Your task to perform on an android device: Search for a nightstand on IKEA. Image 0: 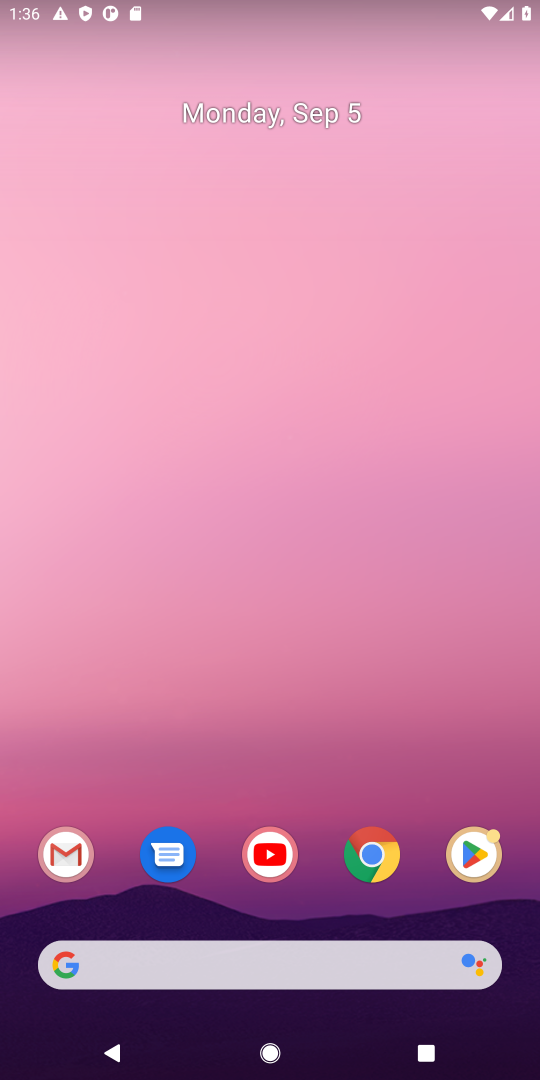
Step 0: click (395, 953)
Your task to perform on an android device: Search for a nightstand on IKEA. Image 1: 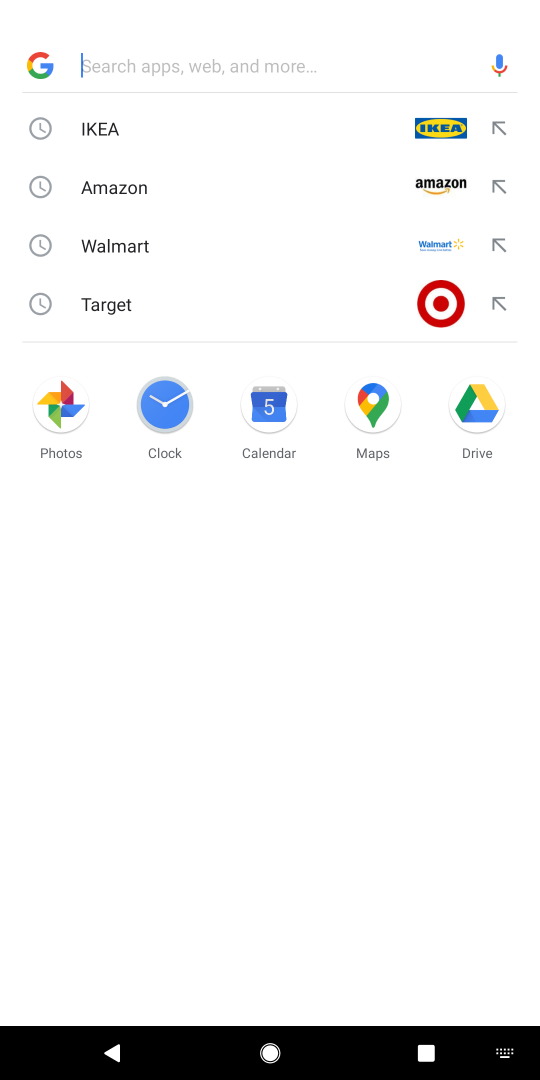
Step 1: press enter
Your task to perform on an android device: Search for a nightstand on IKEA. Image 2: 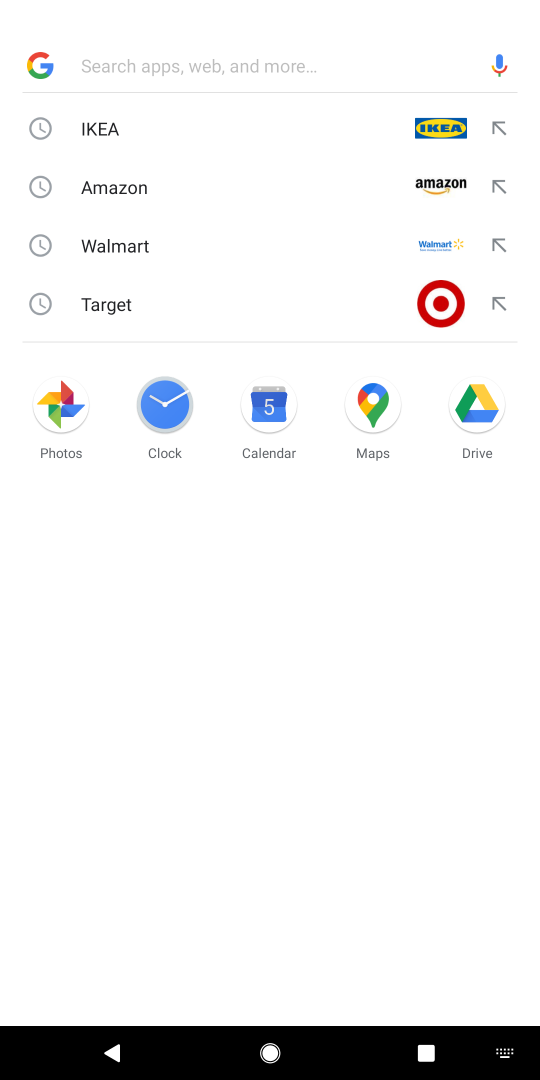
Step 2: type "ikea"
Your task to perform on an android device: Search for a nightstand on IKEA. Image 3: 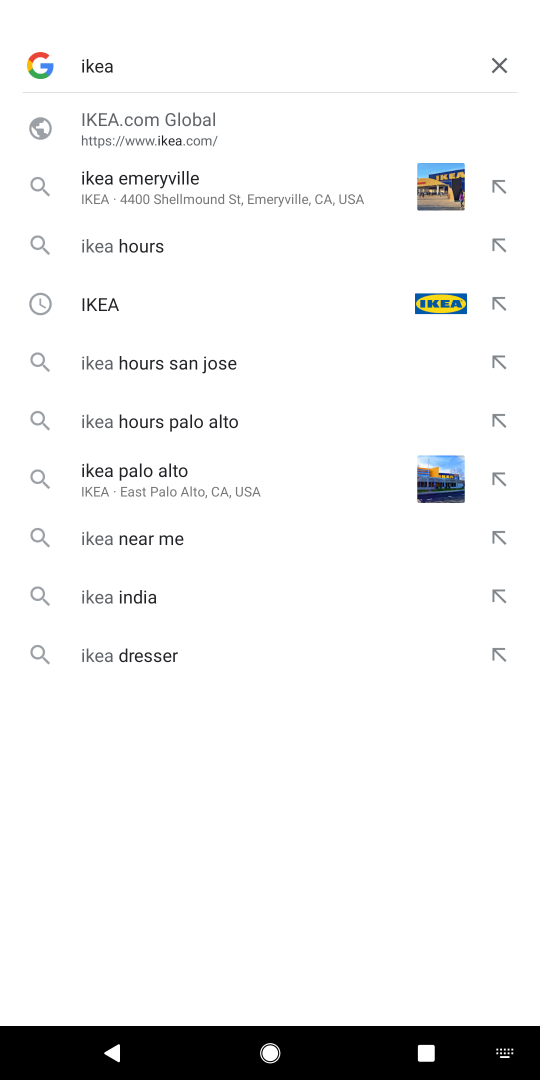
Step 3: click (150, 298)
Your task to perform on an android device: Search for a nightstand on IKEA. Image 4: 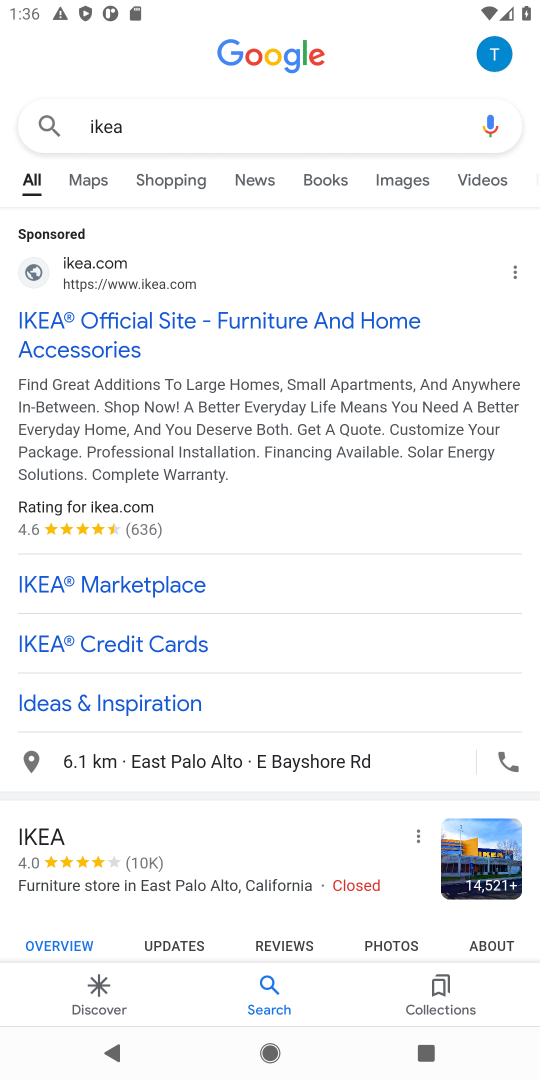
Step 4: click (179, 315)
Your task to perform on an android device: Search for a nightstand on IKEA. Image 5: 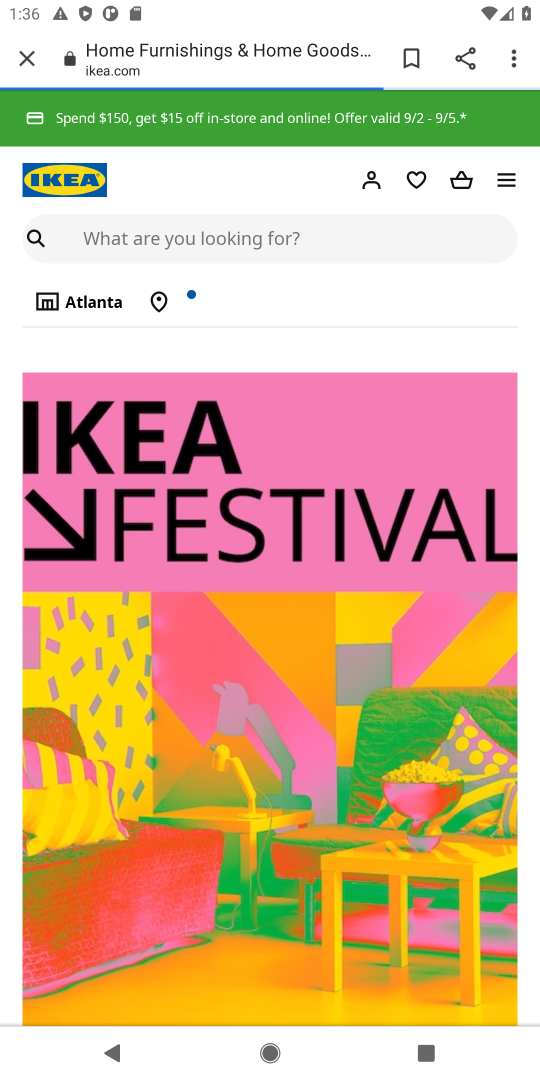
Step 5: click (335, 230)
Your task to perform on an android device: Search for a nightstand on IKEA. Image 6: 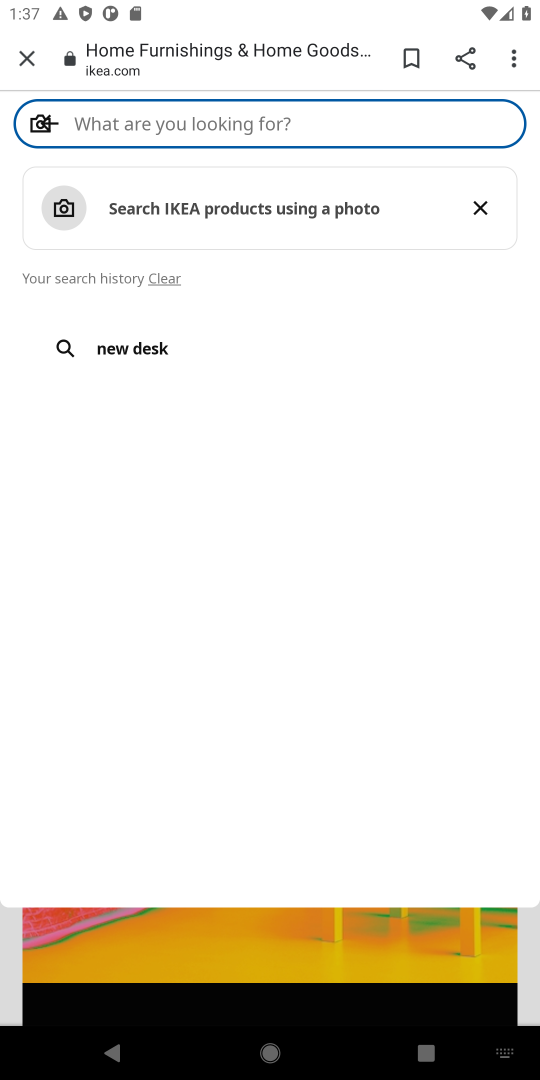
Step 6: press enter
Your task to perform on an android device: Search for a nightstand on IKEA. Image 7: 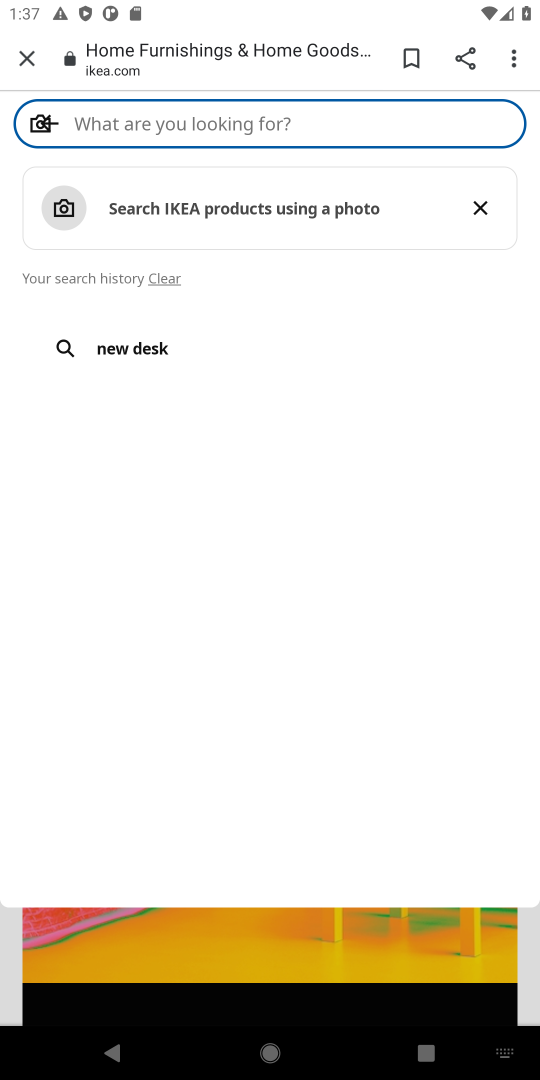
Step 7: type "nightstand"
Your task to perform on an android device: Search for a nightstand on IKEA. Image 8: 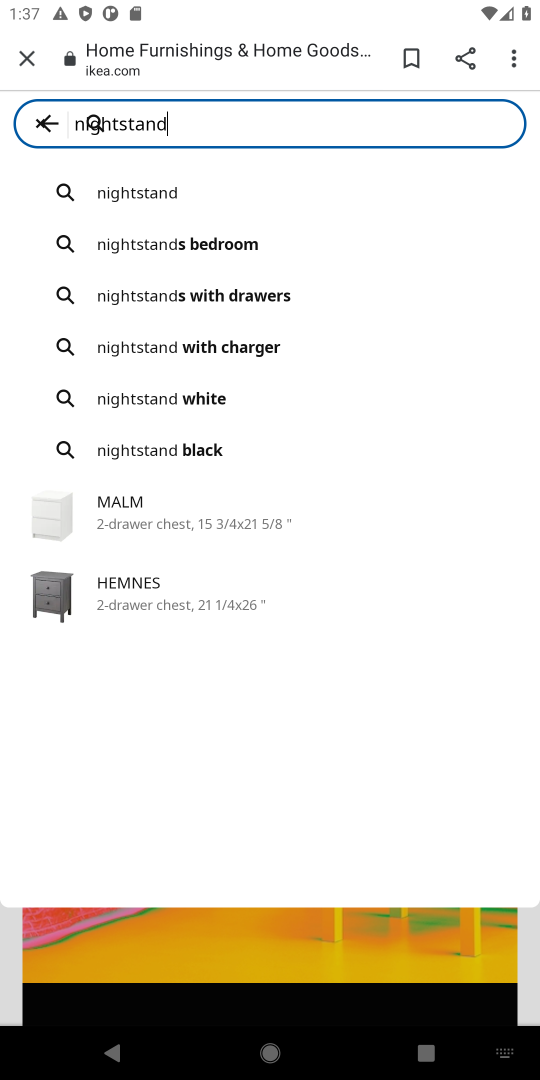
Step 8: click (115, 189)
Your task to perform on an android device: Search for a nightstand on IKEA. Image 9: 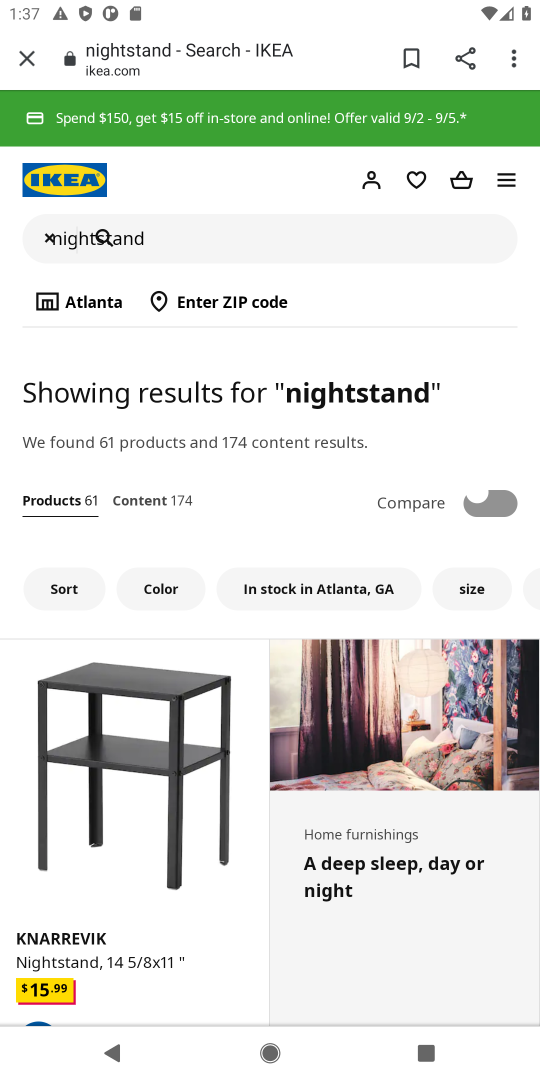
Step 9: task complete